Your task to perform on an android device: toggle improve location accuracy Image 0: 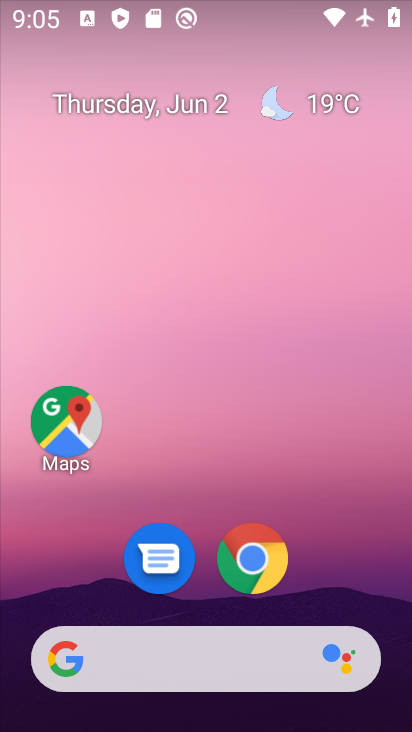
Step 0: drag from (379, 596) to (301, 69)
Your task to perform on an android device: toggle improve location accuracy Image 1: 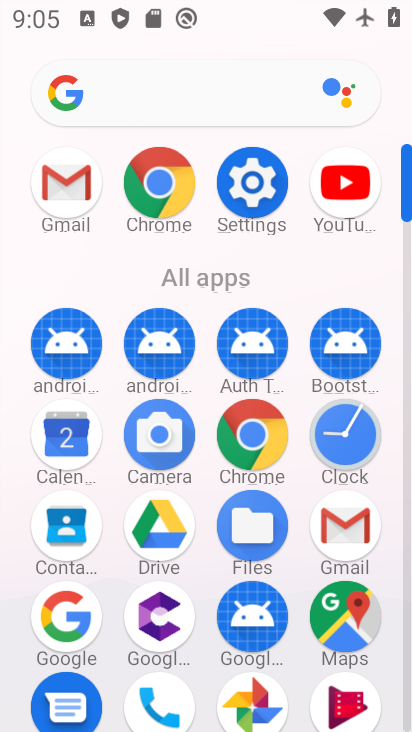
Step 1: click (410, 712)
Your task to perform on an android device: toggle improve location accuracy Image 2: 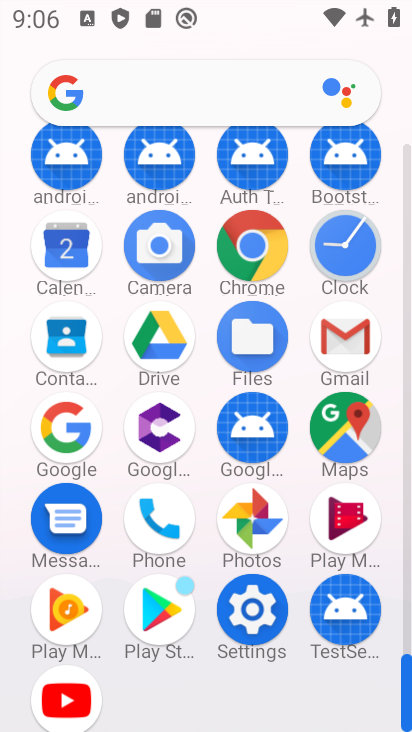
Step 2: click (253, 609)
Your task to perform on an android device: toggle improve location accuracy Image 3: 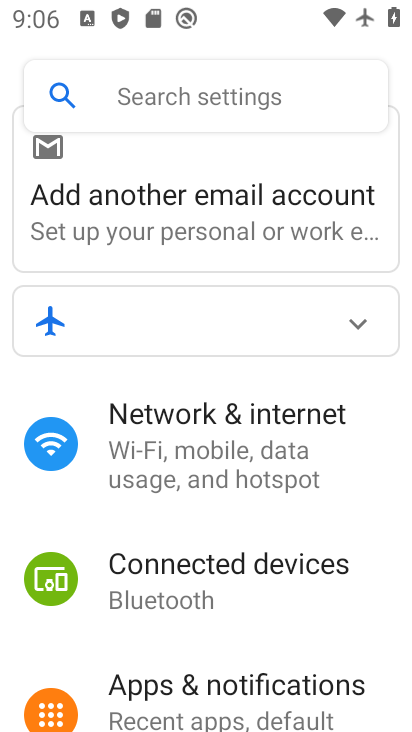
Step 3: drag from (334, 646) to (256, 51)
Your task to perform on an android device: toggle improve location accuracy Image 4: 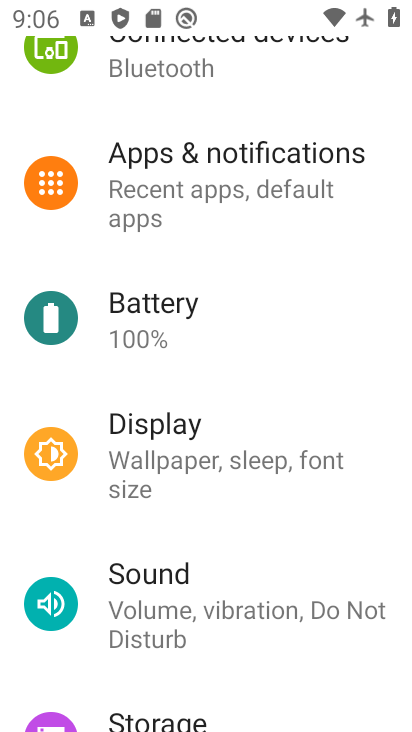
Step 4: drag from (282, 548) to (261, 130)
Your task to perform on an android device: toggle improve location accuracy Image 5: 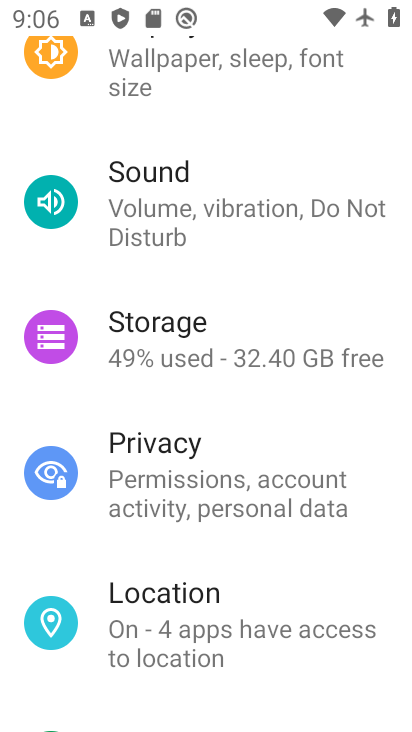
Step 5: drag from (269, 594) to (256, 245)
Your task to perform on an android device: toggle improve location accuracy Image 6: 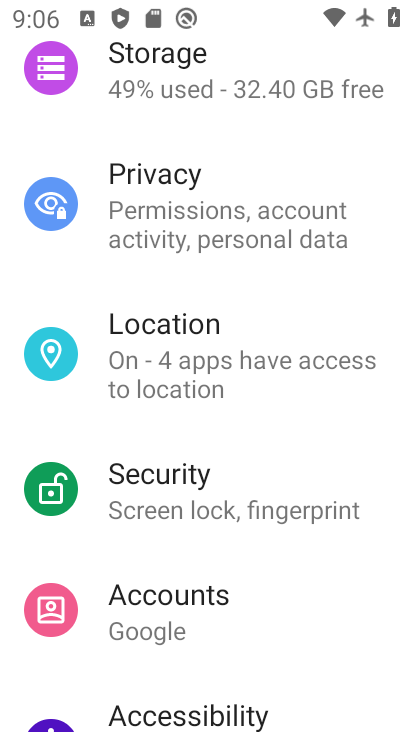
Step 6: drag from (298, 612) to (267, 187)
Your task to perform on an android device: toggle improve location accuracy Image 7: 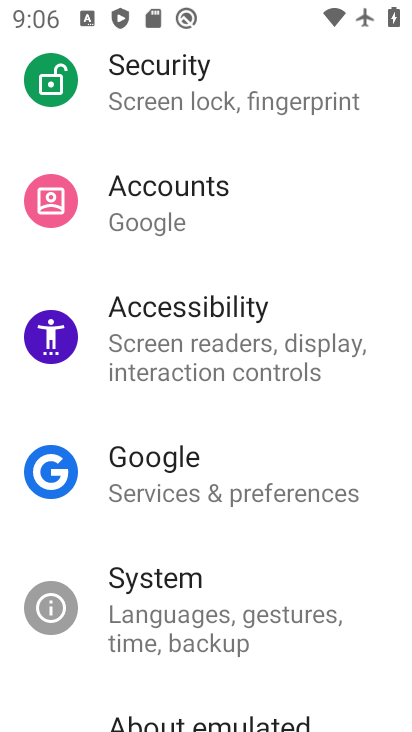
Step 7: drag from (265, 631) to (245, 219)
Your task to perform on an android device: toggle improve location accuracy Image 8: 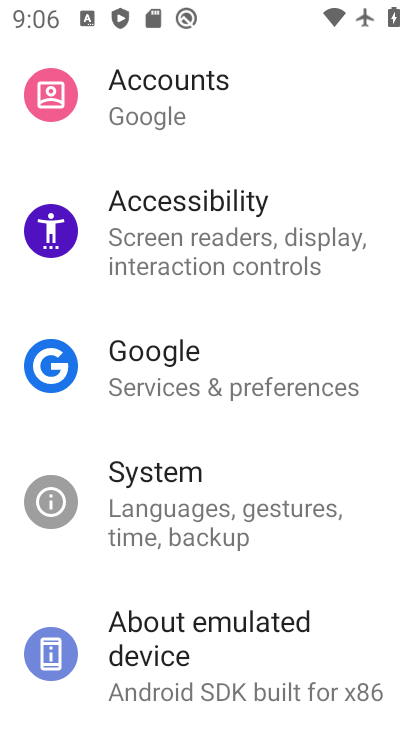
Step 8: drag from (315, 70) to (283, 546)
Your task to perform on an android device: toggle improve location accuracy Image 9: 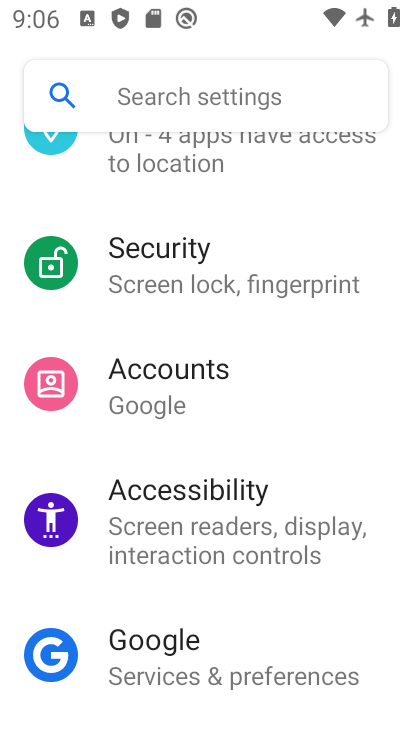
Step 9: drag from (235, 313) to (212, 507)
Your task to perform on an android device: toggle improve location accuracy Image 10: 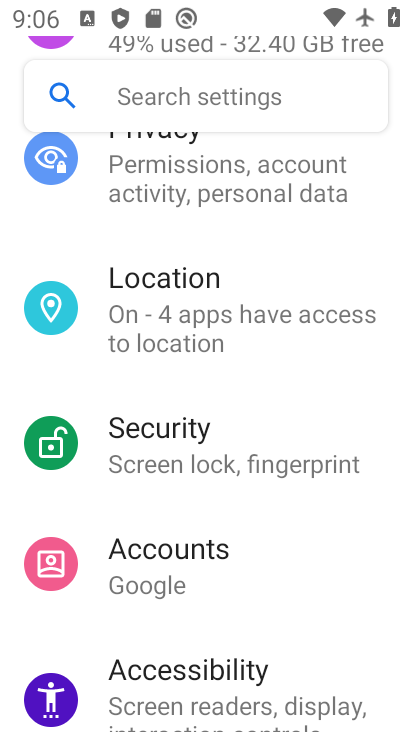
Step 10: click (178, 296)
Your task to perform on an android device: toggle improve location accuracy Image 11: 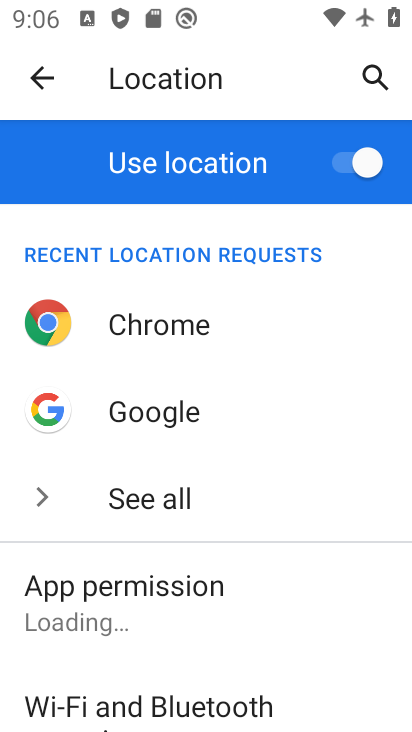
Step 11: drag from (216, 627) to (227, 315)
Your task to perform on an android device: toggle improve location accuracy Image 12: 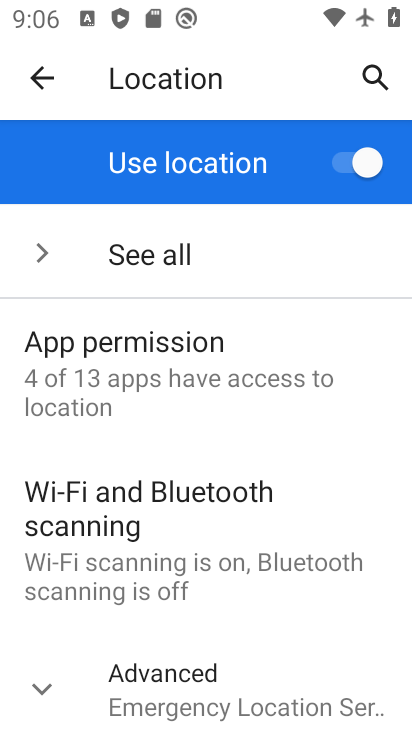
Step 12: click (46, 689)
Your task to perform on an android device: toggle improve location accuracy Image 13: 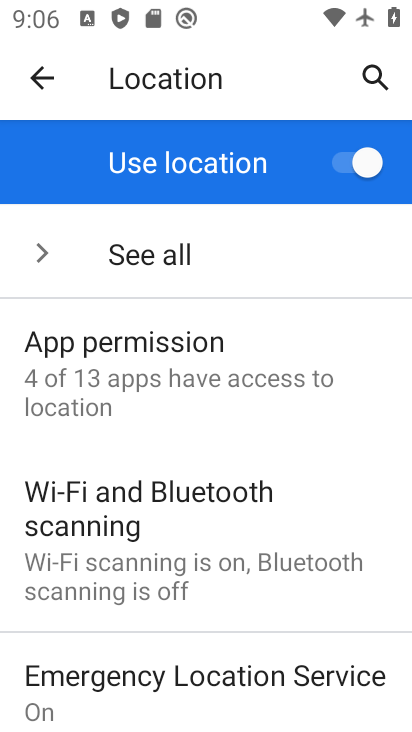
Step 13: drag from (198, 645) to (215, 207)
Your task to perform on an android device: toggle improve location accuracy Image 14: 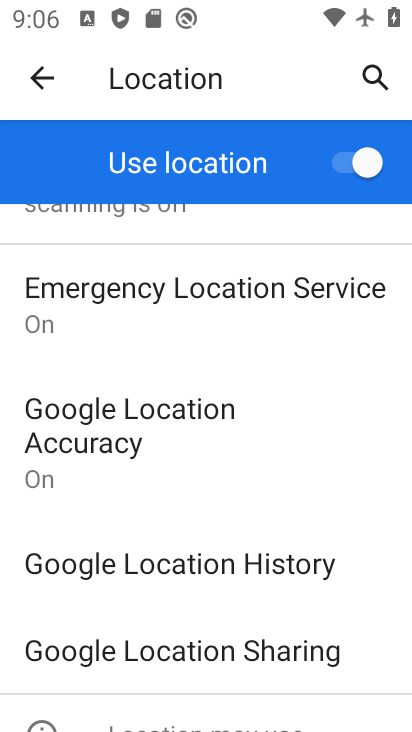
Step 14: click (75, 427)
Your task to perform on an android device: toggle improve location accuracy Image 15: 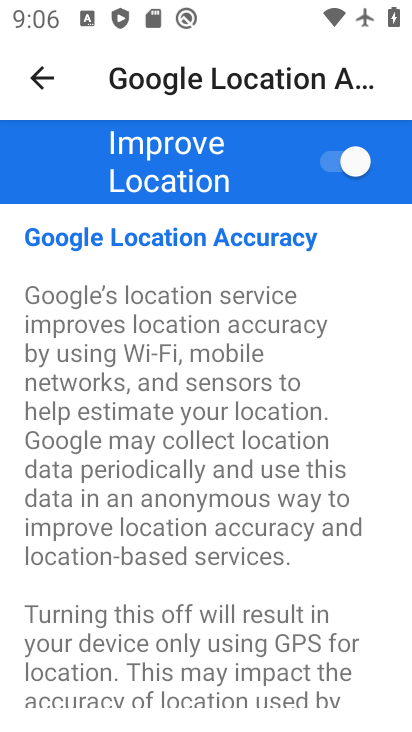
Step 15: click (331, 162)
Your task to perform on an android device: toggle improve location accuracy Image 16: 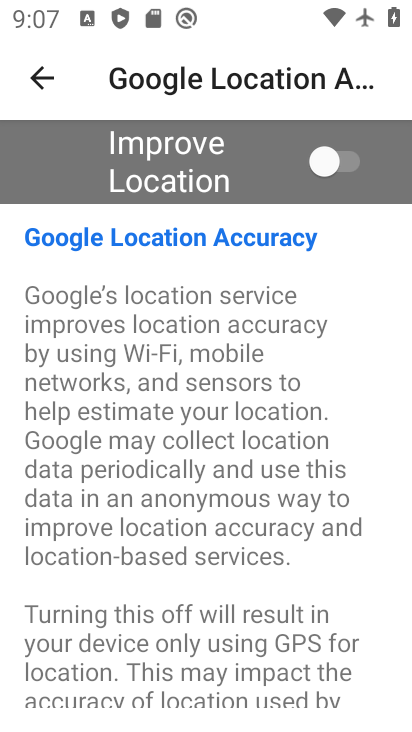
Step 16: task complete